Your task to perform on an android device: turn pop-ups off in chrome Image 0: 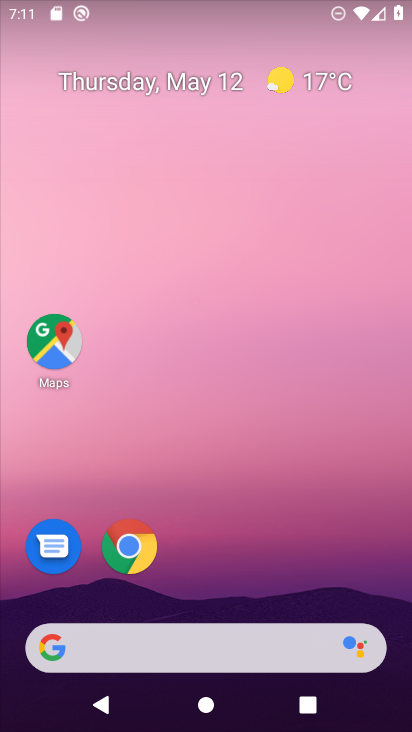
Step 0: click (134, 551)
Your task to perform on an android device: turn pop-ups off in chrome Image 1: 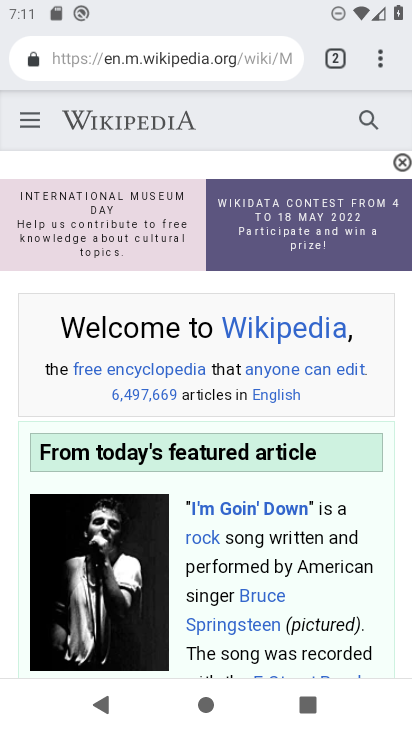
Step 1: click (376, 51)
Your task to perform on an android device: turn pop-ups off in chrome Image 2: 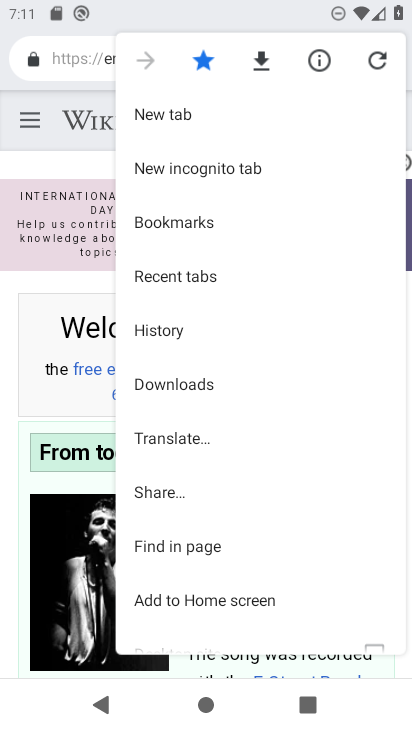
Step 2: drag from (246, 514) to (182, 199)
Your task to perform on an android device: turn pop-ups off in chrome Image 3: 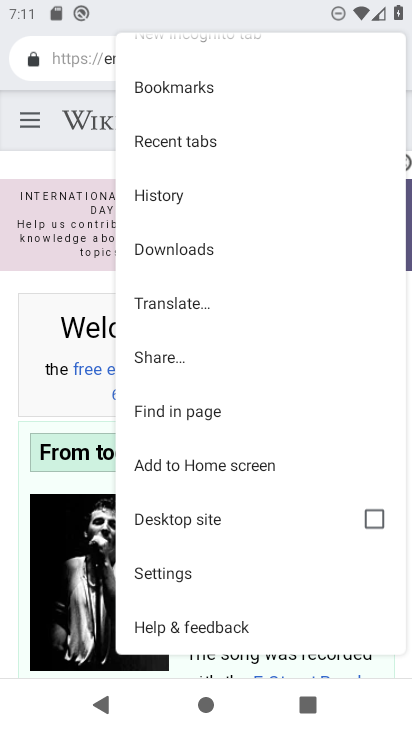
Step 3: click (146, 579)
Your task to perform on an android device: turn pop-ups off in chrome Image 4: 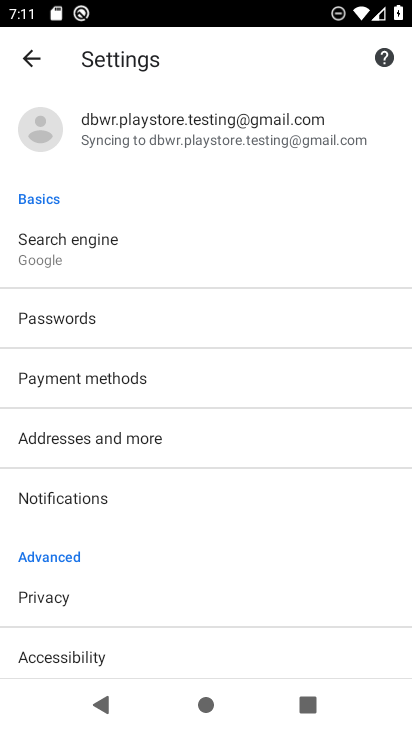
Step 4: drag from (156, 550) to (78, 323)
Your task to perform on an android device: turn pop-ups off in chrome Image 5: 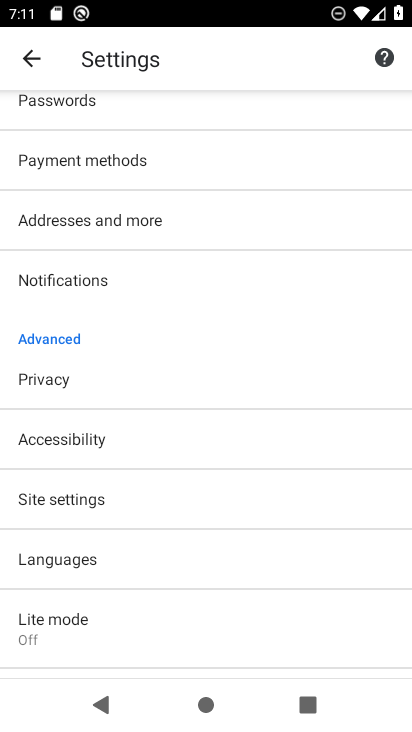
Step 5: click (59, 497)
Your task to perform on an android device: turn pop-ups off in chrome Image 6: 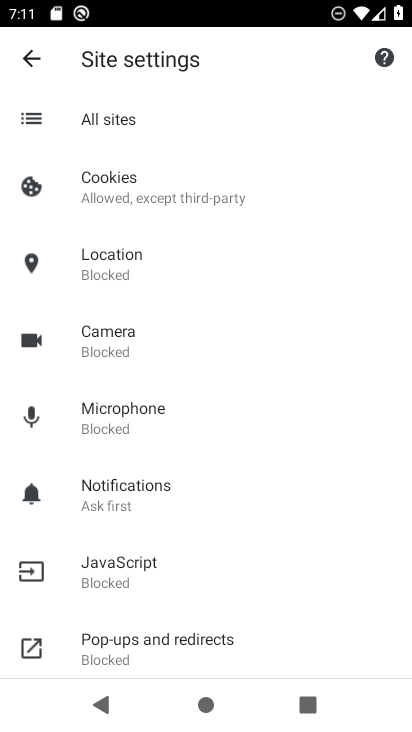
Step 6: click (136, 639)
Your task to perform on an android device: turn pop-ups off in chrome Image 7: 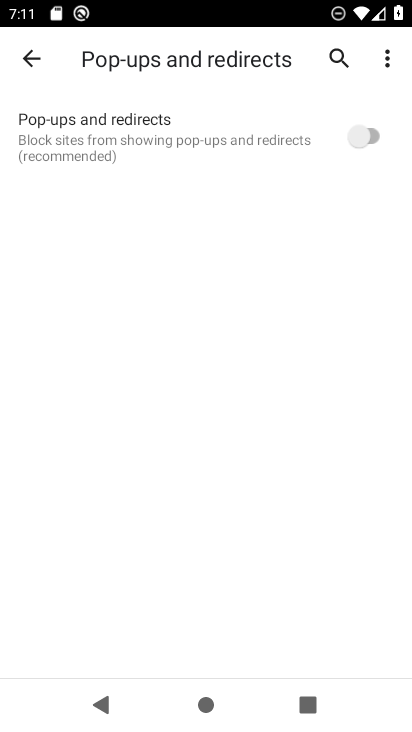
Step 7: task complete